Your task to perform on an android device: toggle location history Image 0: 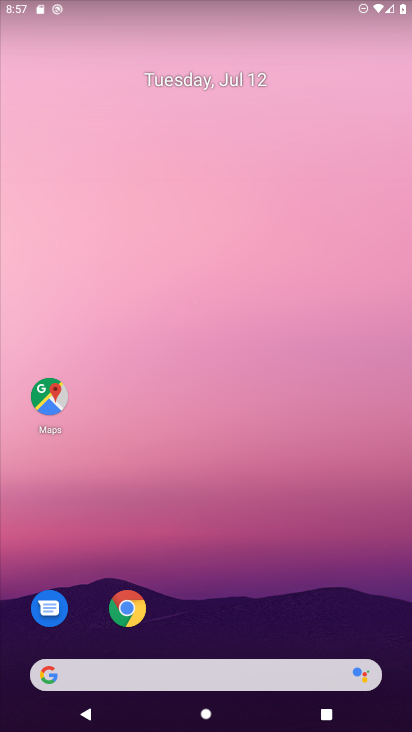
Step 0: drag from (182, 618) to (249, 37)
Your task to perform on an android device: toggle location history Image 1: 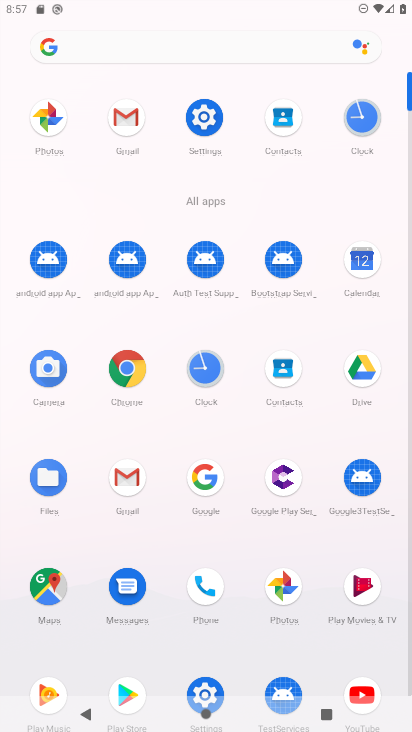
Step 1: click (191, 138)
Your task to perform on an android device: toggle location history Image 2: 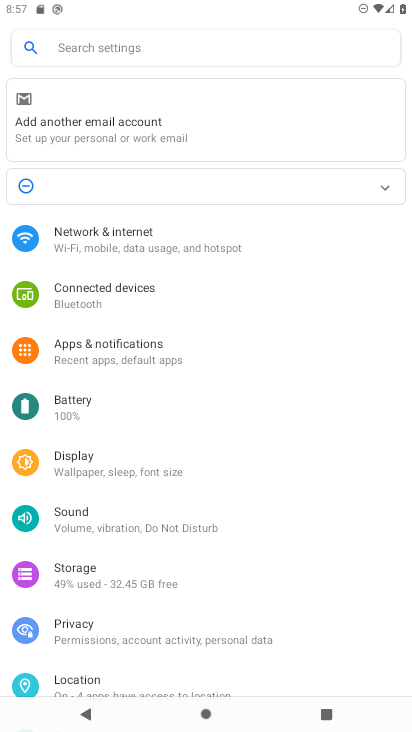
Step 2: click (78, 677)
Your task to perform on an android device: toggle location history Image 3: 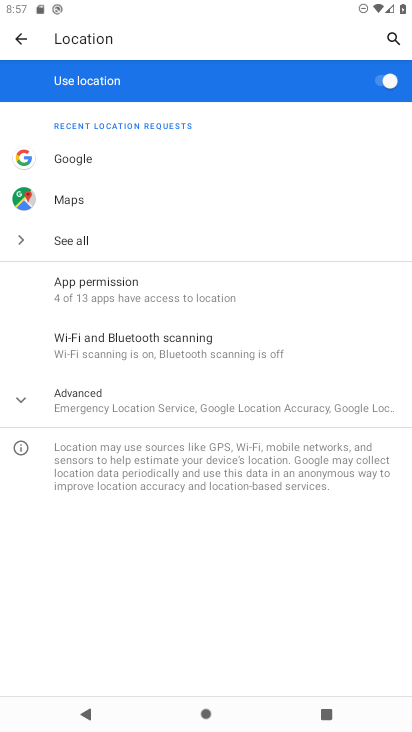
Step 3: click (171, 402)
Your task to perform on an android device: toggle location history Image 4: 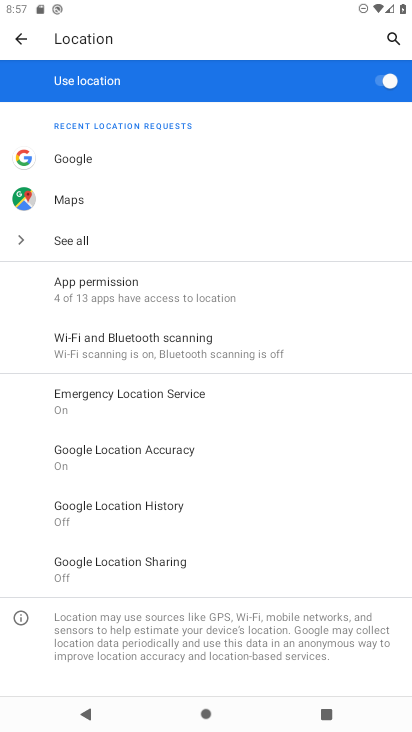
Step 4: click (183, 506)
Your task to perform on an android device: toggle location history Image 5: 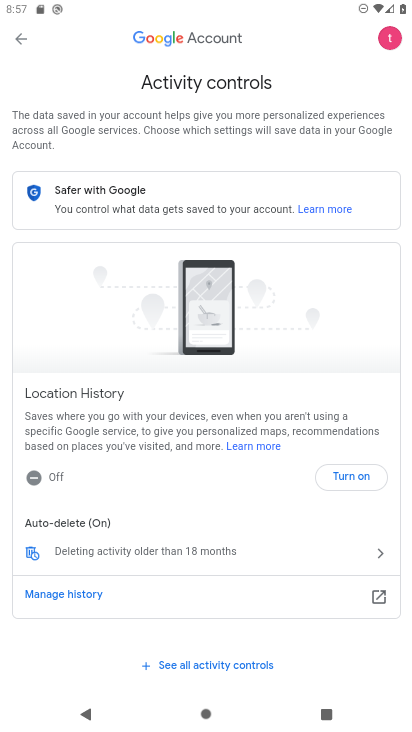
Step 5: click (345, 472)
Your task to perform on an android device: toggle location history Image 6: 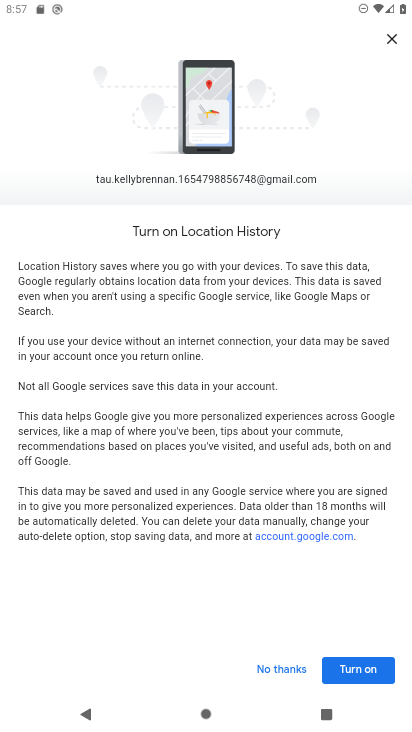
Step 6: click (351, 681)
Your task to perform on an android device: toggle location history Image 7: 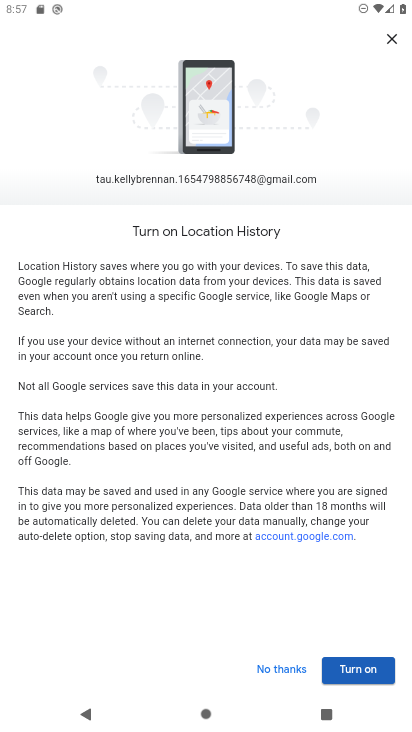
Step 7: click (351, 681)
Your task to perform on an android device: toggle location history Image 8: 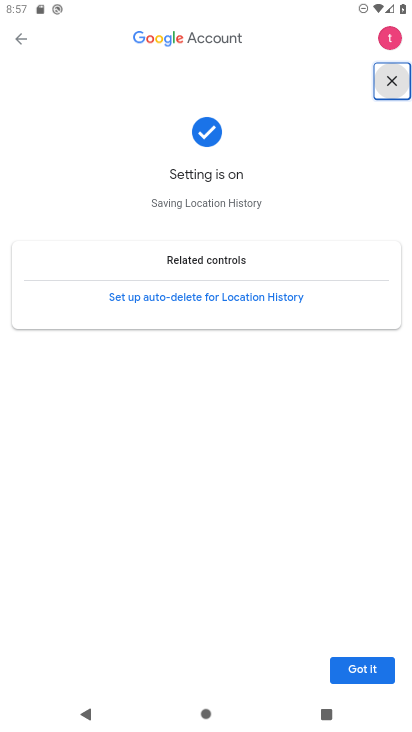
Step 8: click (352, 663)
Your task to perform on an android device: toggle location history Image 9: 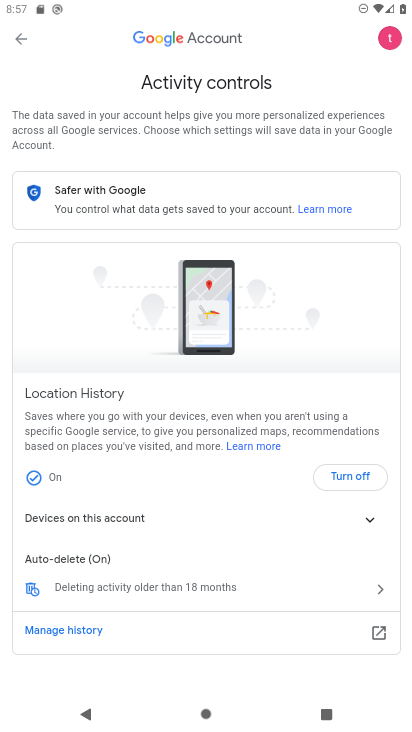
Step 9: task complete